Your task to perform on an android device: Do I have any events today? Image 0: 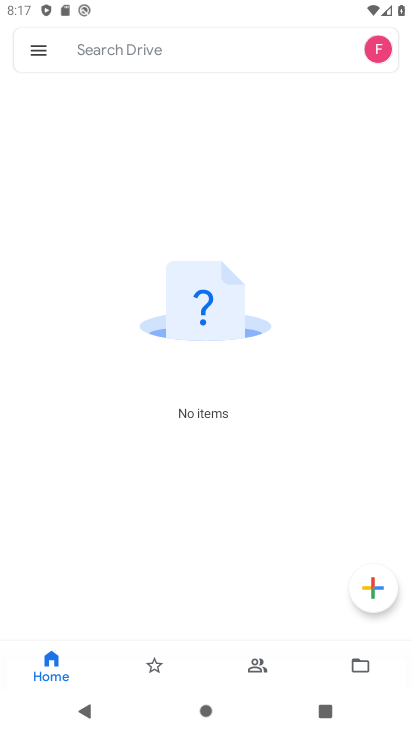
Step 0: press home button
Your task to perform on an android device: Do I have any events today? Image 1: 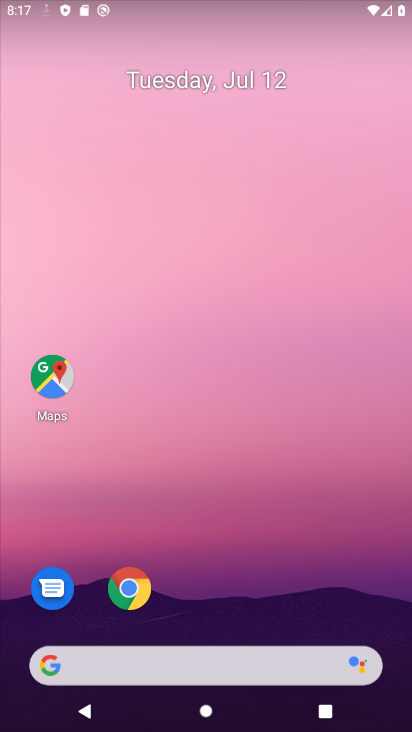
Step 1: drag from (178, 666) to (248, 119)
Your task to perform on an android device: Do I have any events today? Image 2: 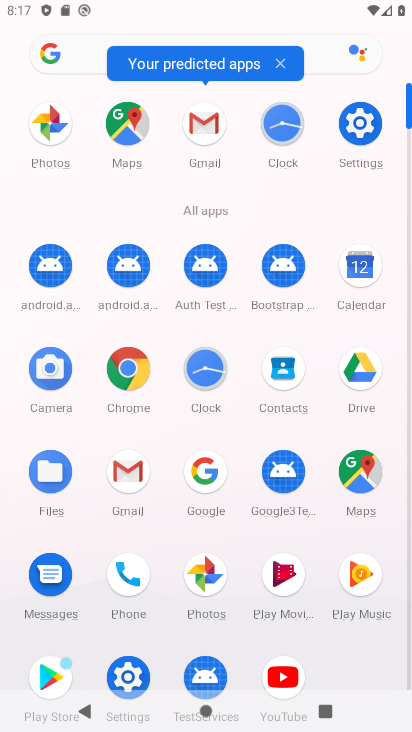
Step 2: click (356, 248)
Your task to perform on an android device: Do I have any events today? Image 3: 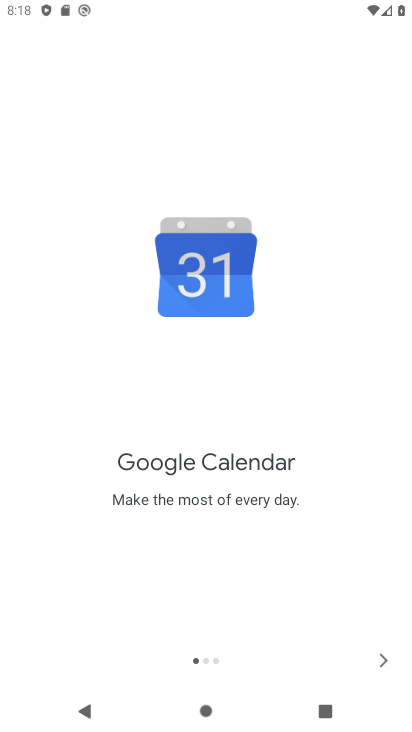
Step 3: click (388, 658)
Your task to perform on an android device: Do I have any events today? Image 4: 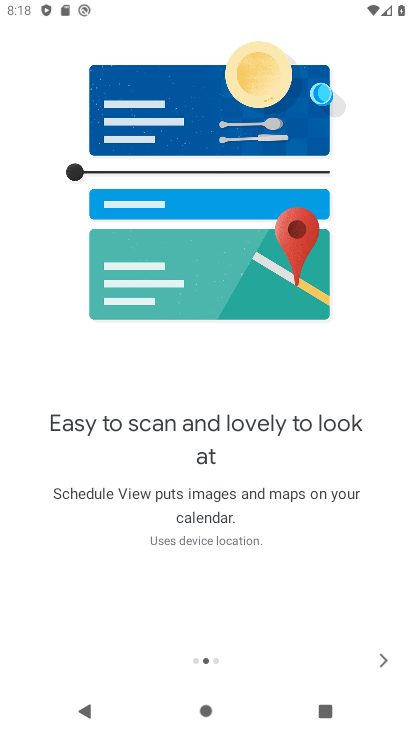
Step 4: click (388, 658)
Your task to perform on an android device: Do I have any events today? Image 5: 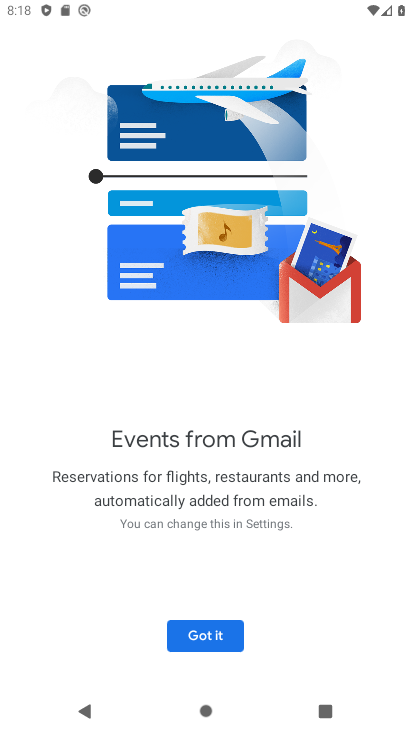
Step 5: click (196, 636)
Your task to perform on an android device: Do I have any events today? Image 6: 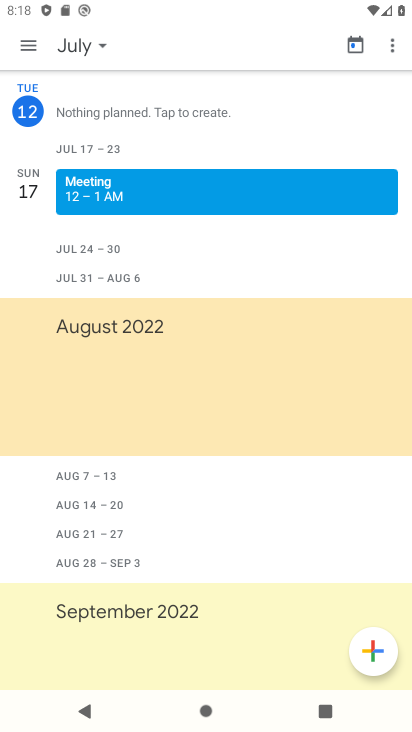
Step 6: task complete